Your task to perform on an android device: Open the web browser Image 0: 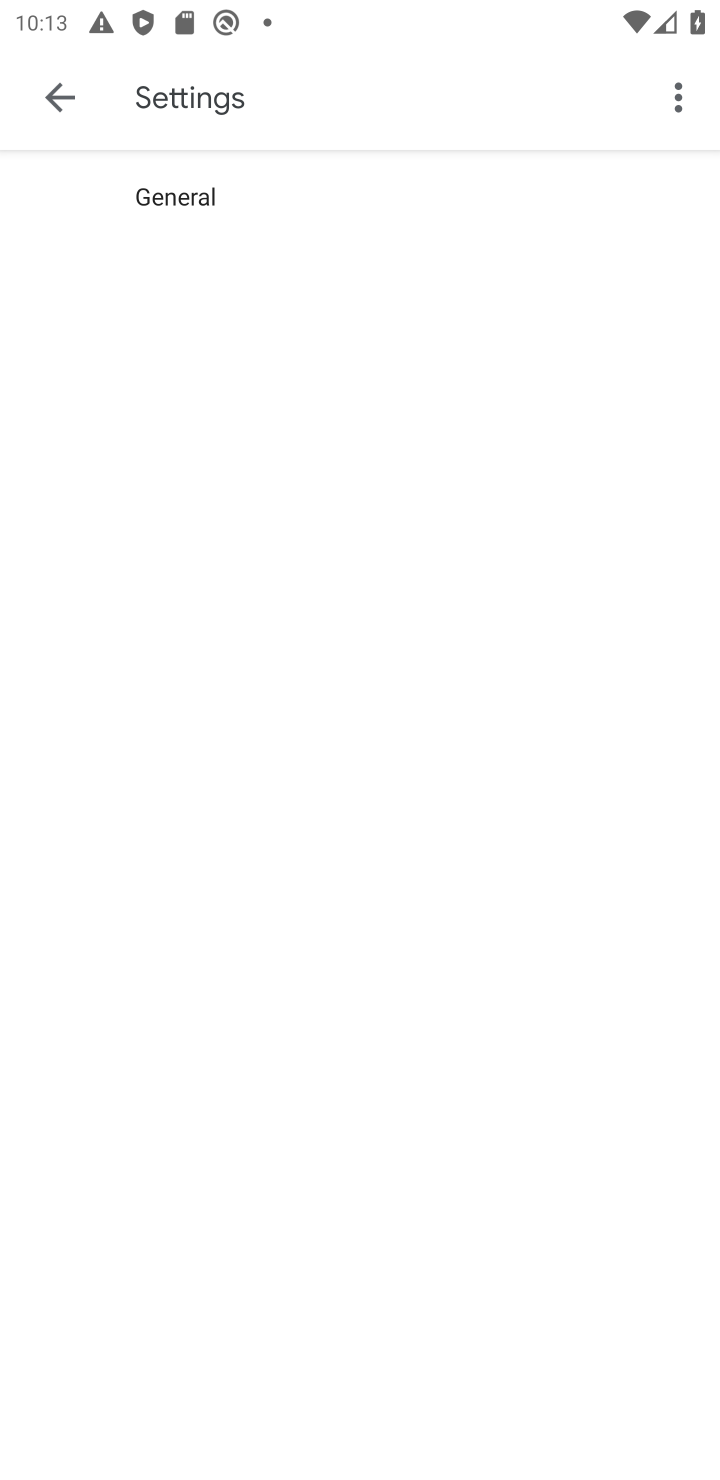
Step 0: press home button
Your task to perform on an android device: Open the web browser Image 1: 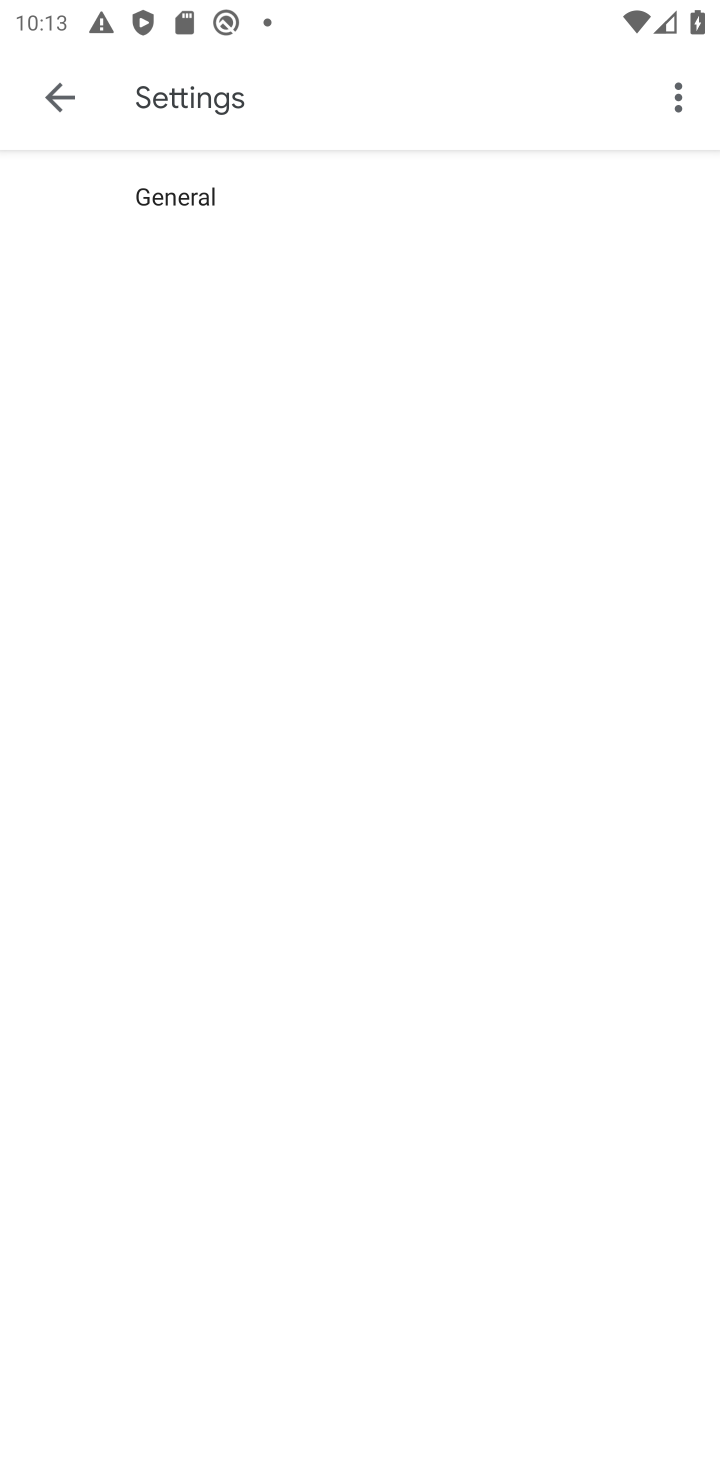
Step 1: press home button
Your task to perform on an android device: Open the web browser Image 2: 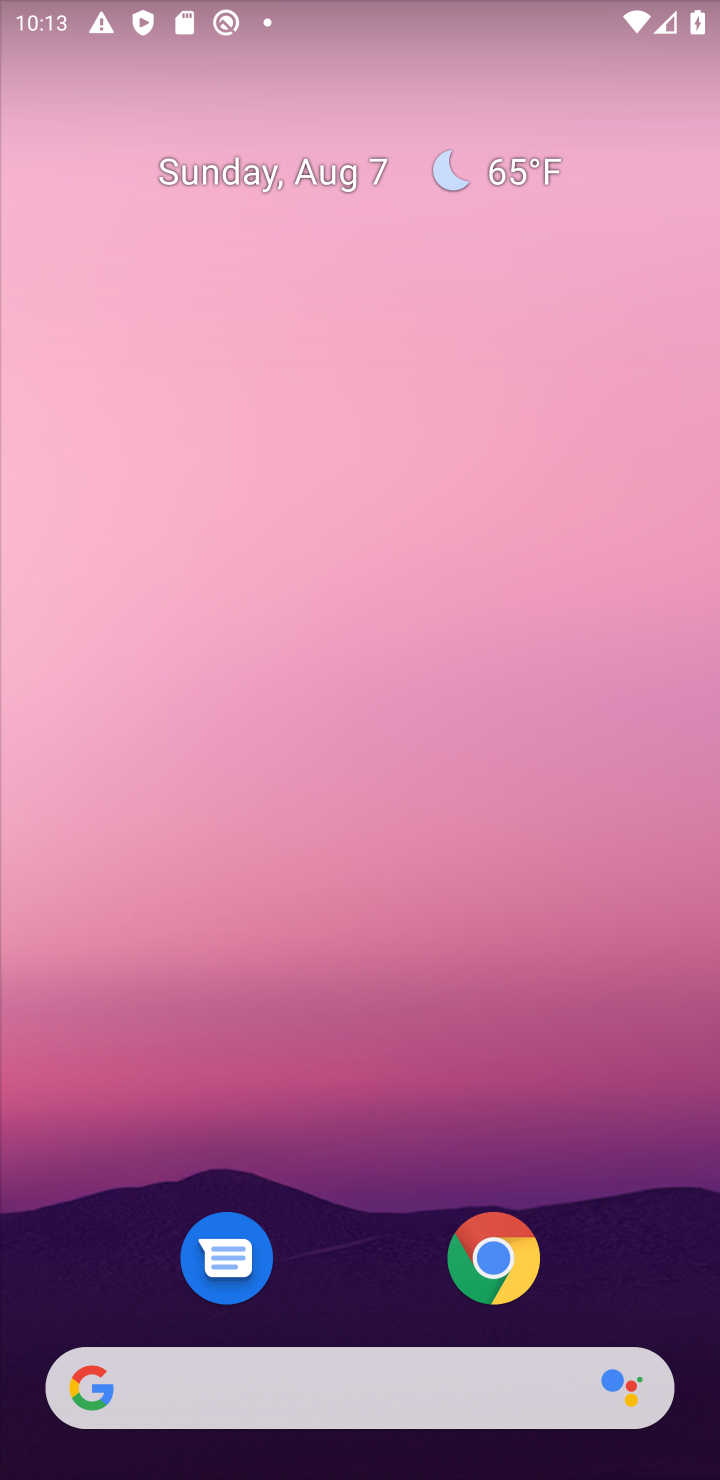
Step 2: drag from (419, 1077) to (506, 0)
Your task to perform on an android device: Open the web browser Image 3: 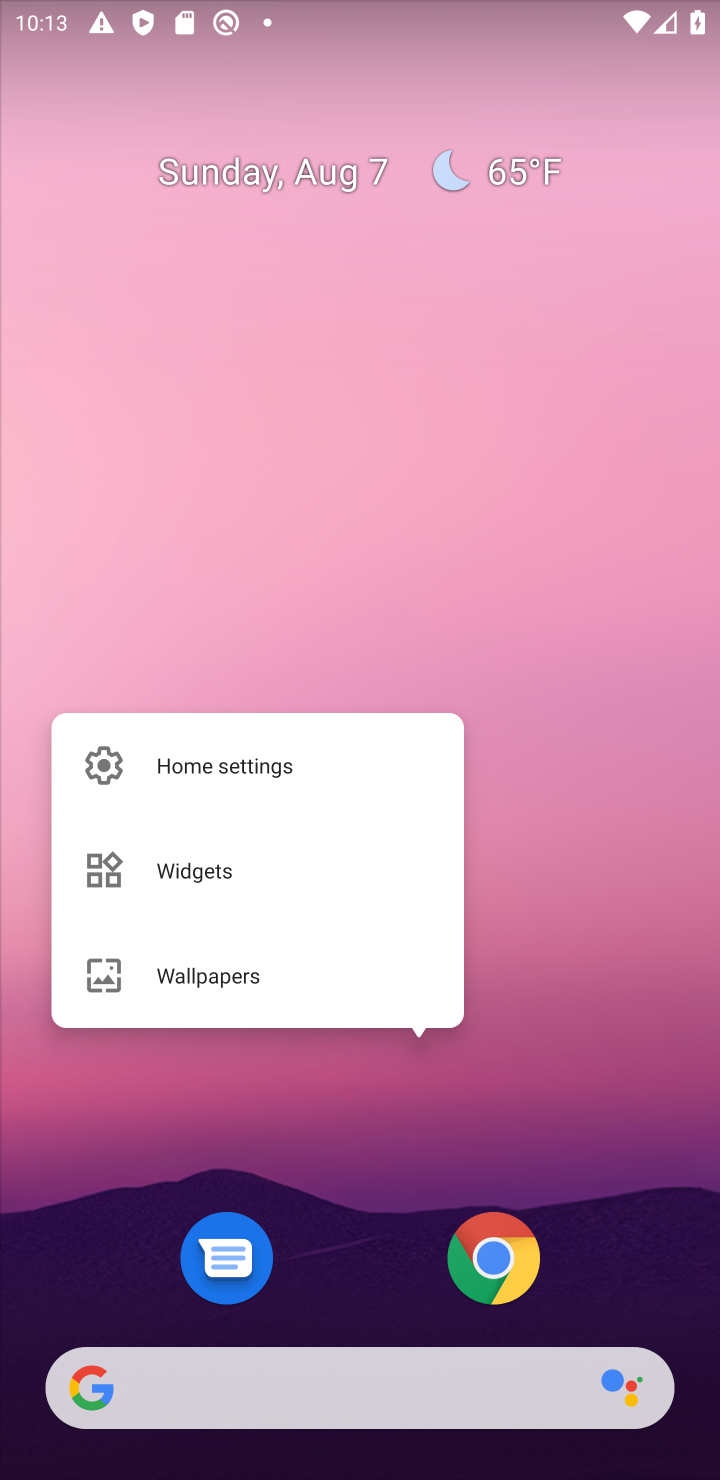
Step 3: click (478, 421)
Your task to perform on an android device: Open the web browser Image 4: 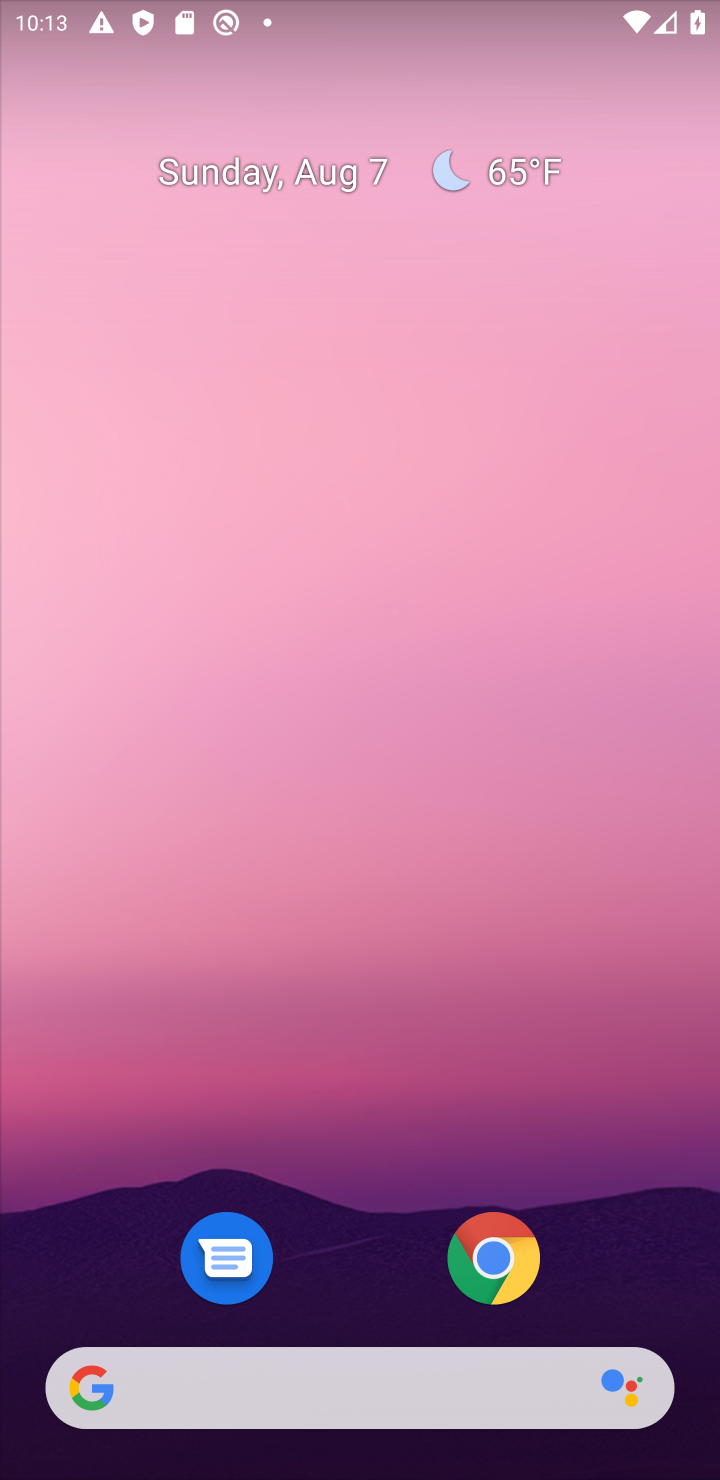
Step 4: drag from (709, 1291) to (335, 192)
Your task to perform on an android device: Open the web browser Image 5: 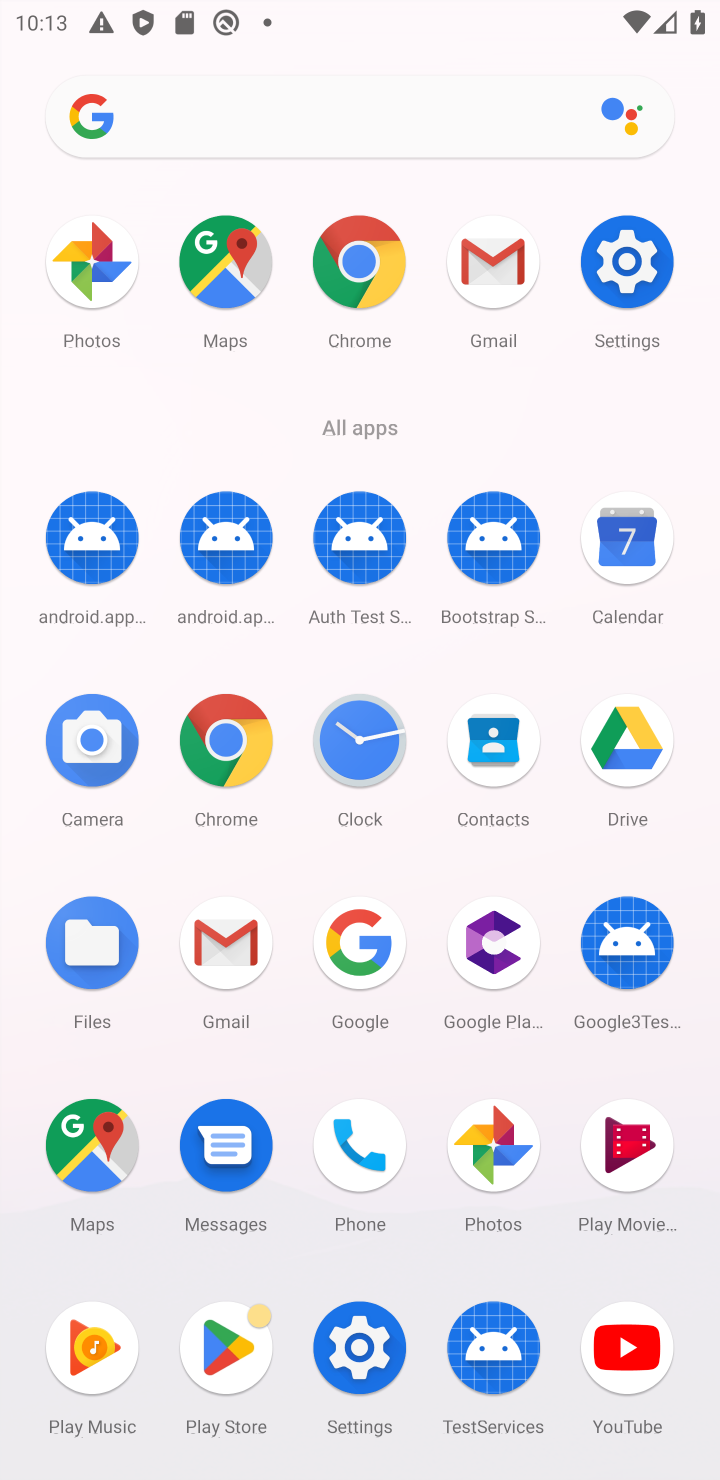
Step 5: click (231, 732)
Your task to perform on an android device: Open the web browser Image 6: 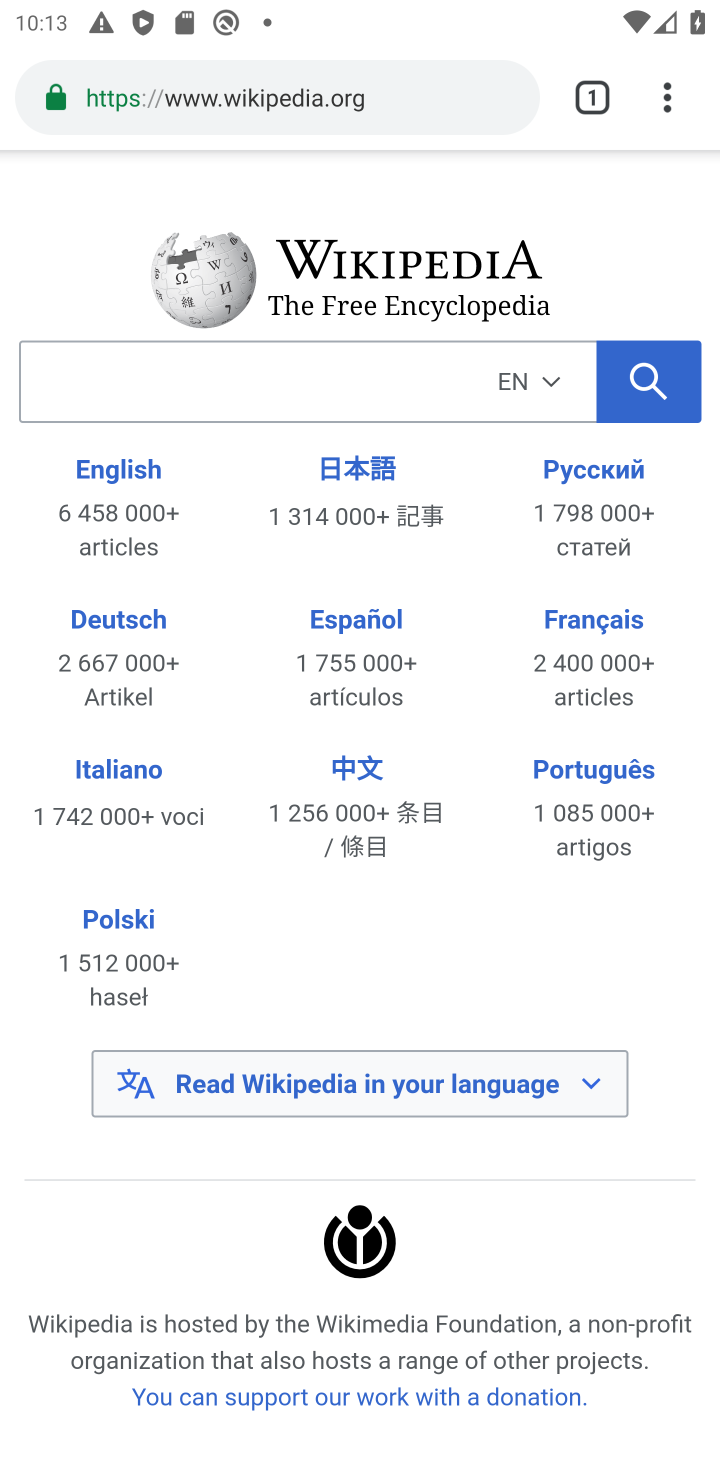
Step 6: click (302, 107)
Your task to perform on an android device: Open the web browser Image 7: 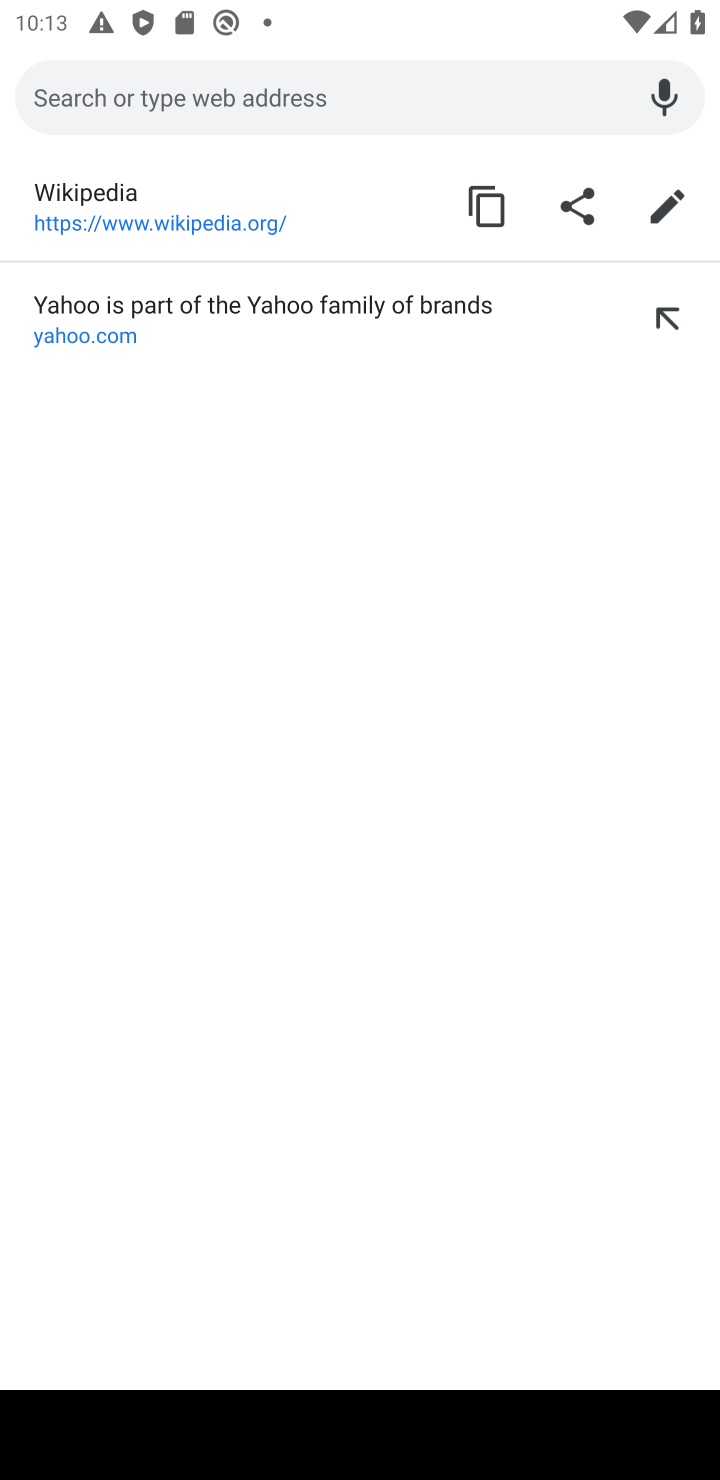
Step 7: type "web browser"
Your task to perform on an android device: Open the web browser Image 8: 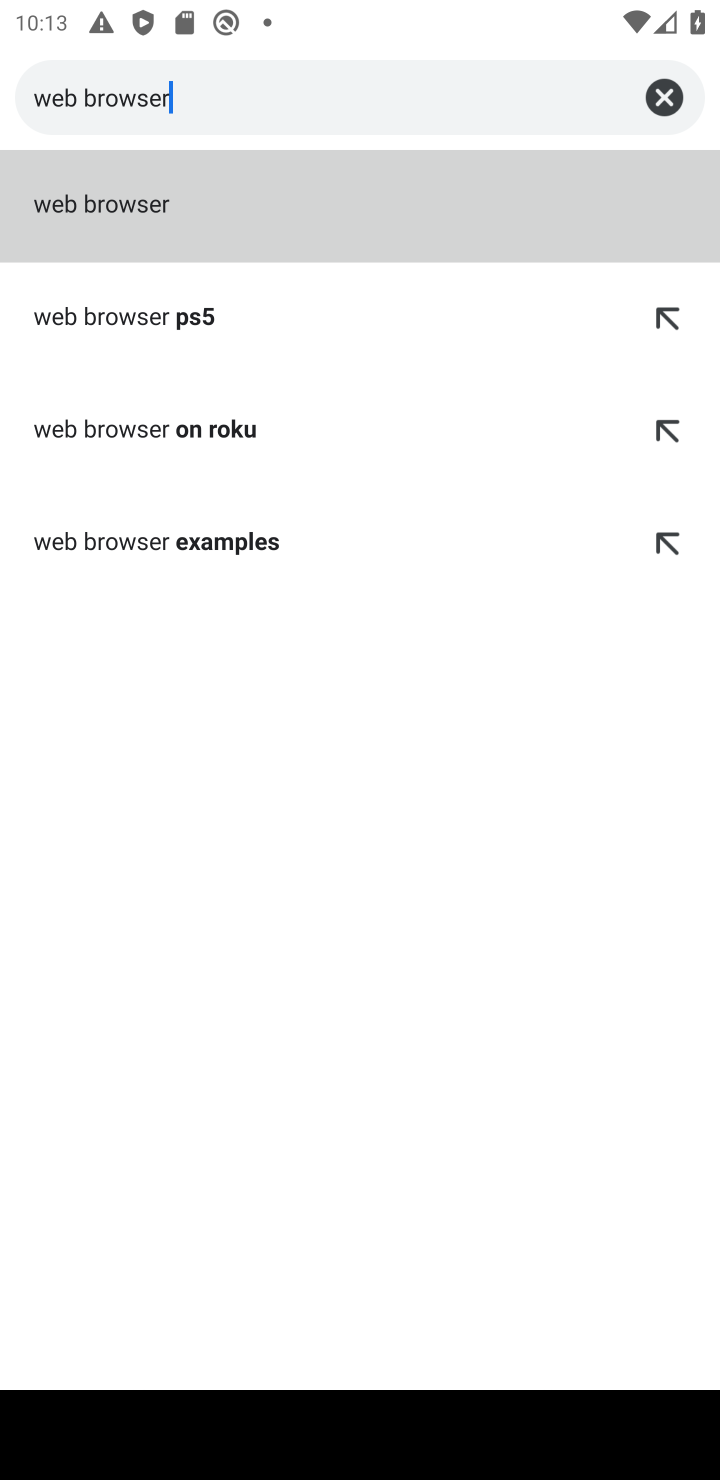
Step 8: type ""
Your task to perform on an android device: Open the web browser Image 9: 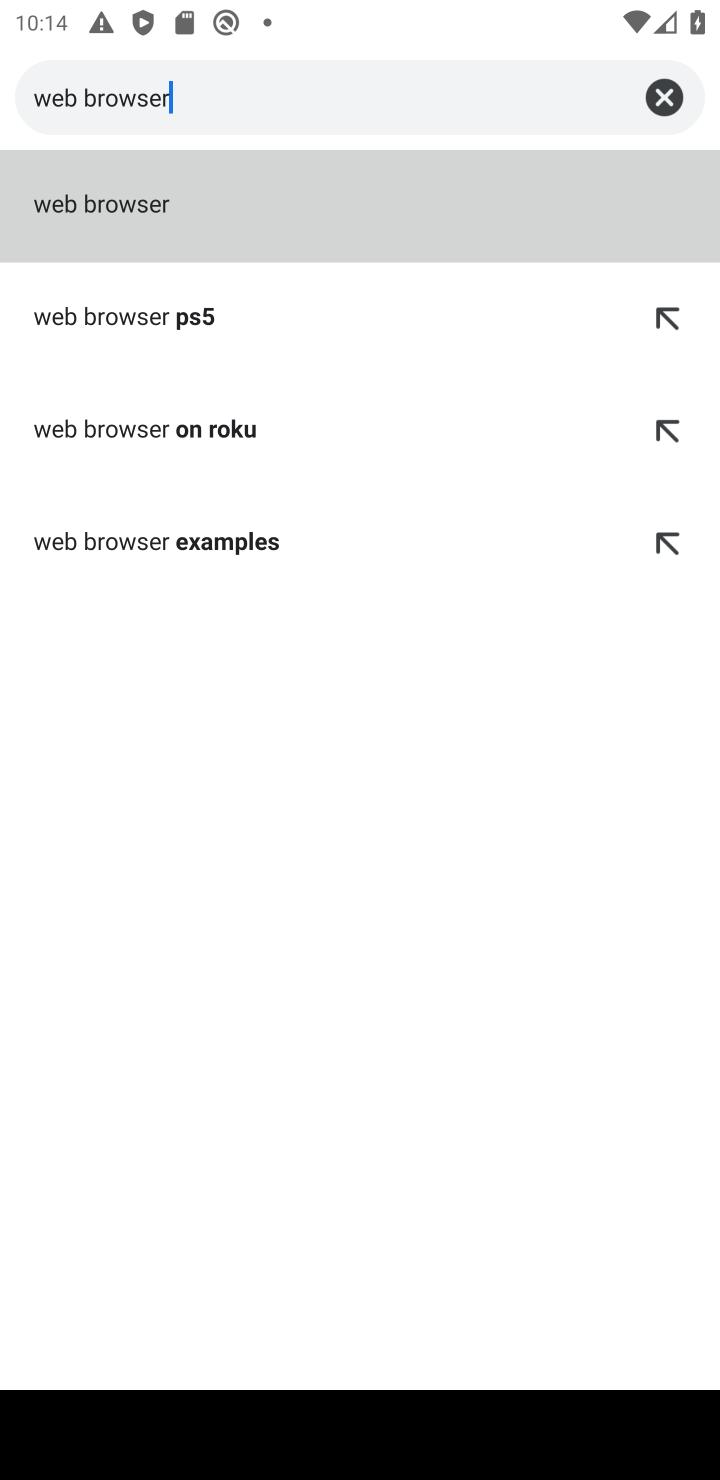
Step 9: click (289, 213)
Your task to perform on an android device: Open the web browser Image 10: 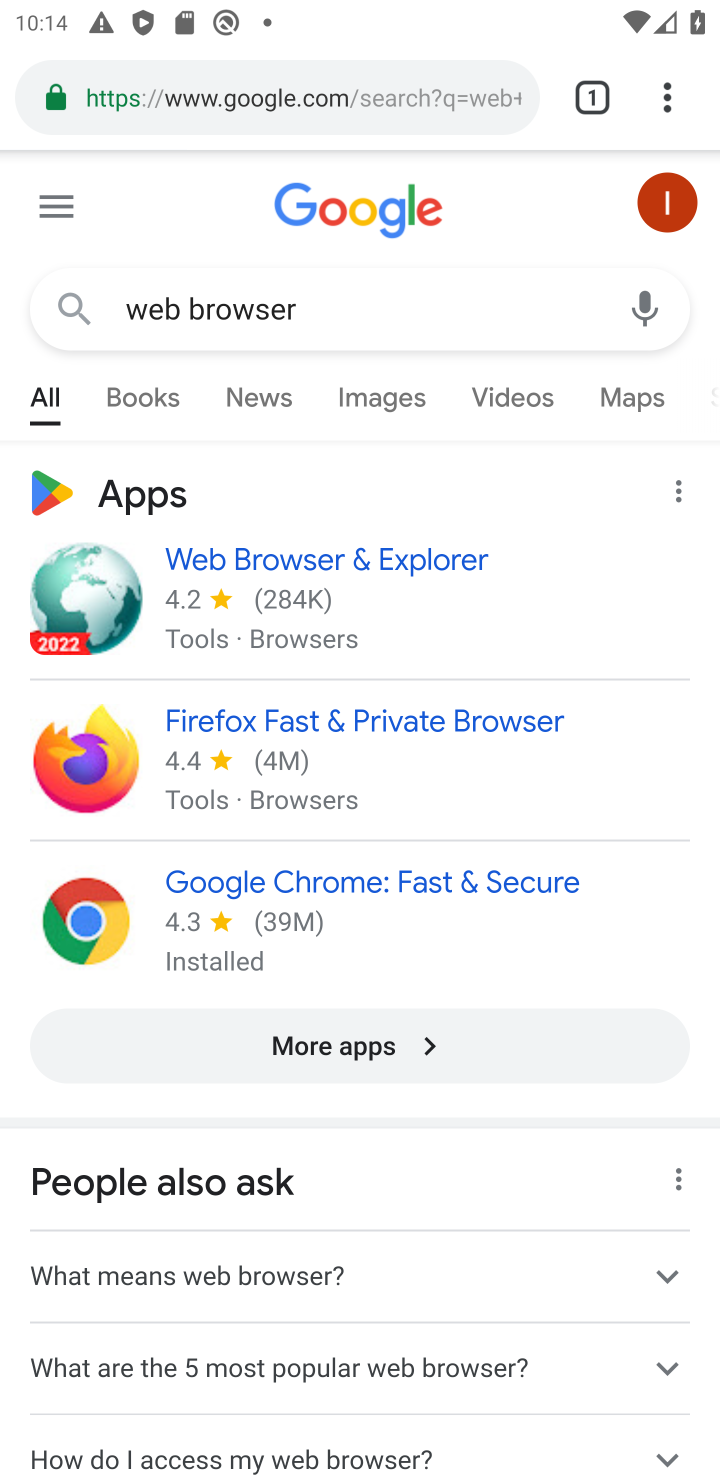
Step 10: task complete